Your task to perform on an android device: all mails in gmail Image 0: 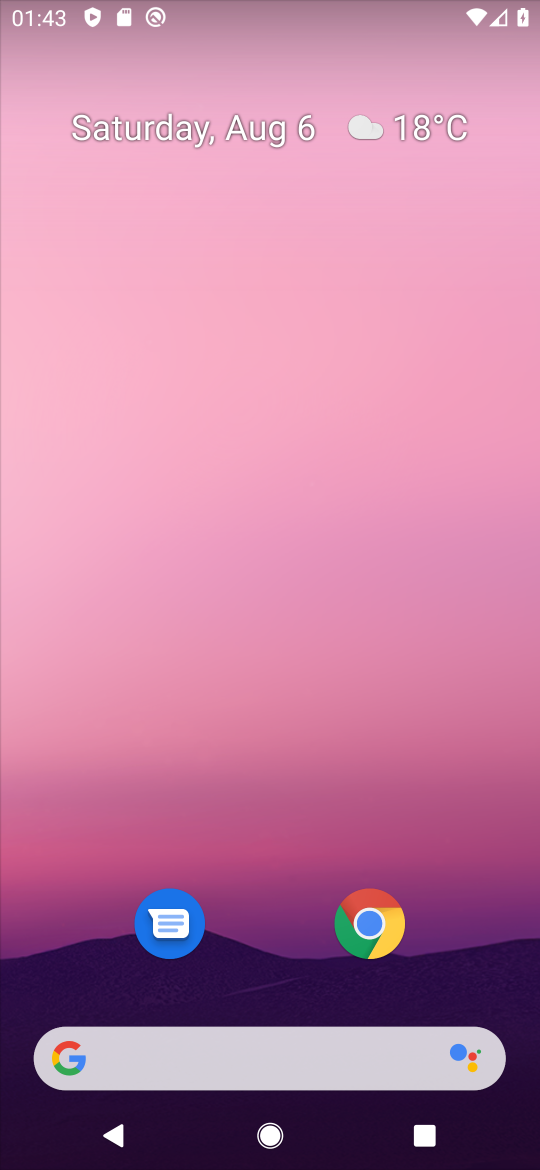
Step 0: drag from (267, 884) to (320, 408)
Your task to perform on an android device: all mails in gmail Image 1: 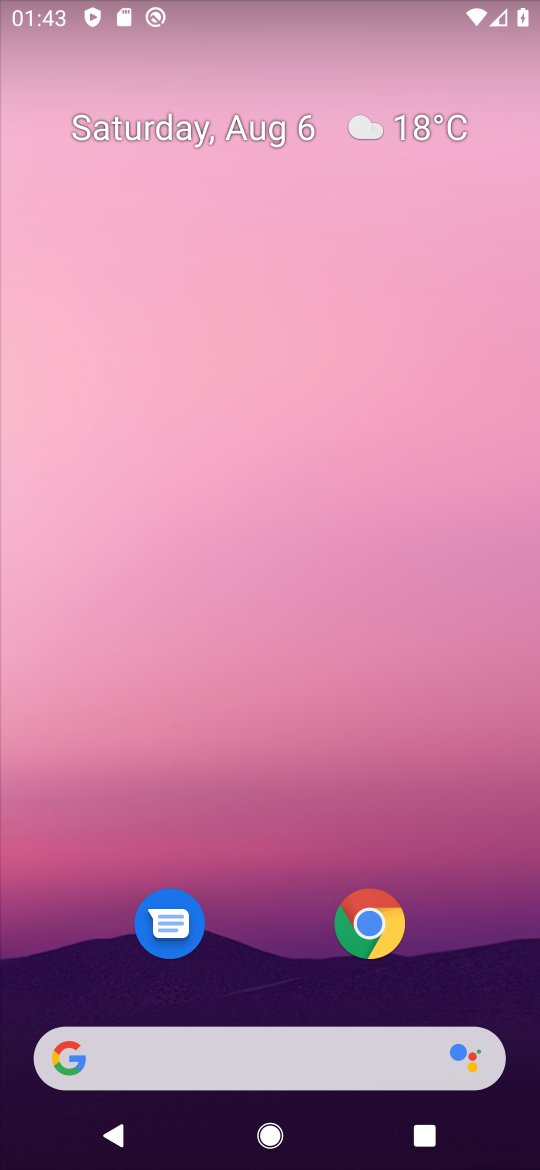
Step 1: drag from (308, 924) to (352, 226)
Your task to perform on an android device: all mails in gmail Image 2: 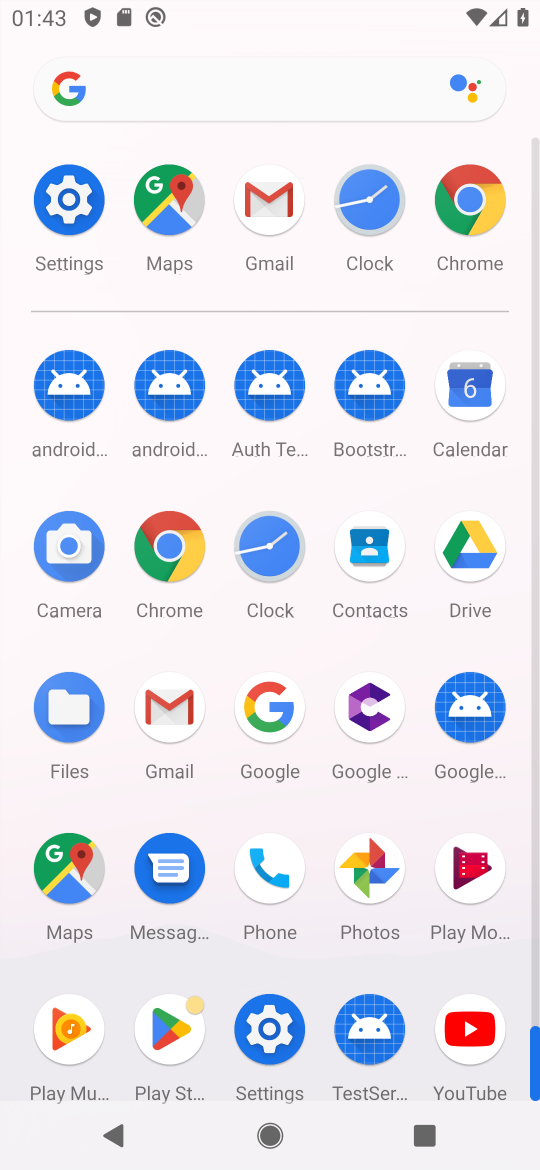
Step 2: click (167, 672)
Your task to perform on an android device: all mails in gmail Image 3: 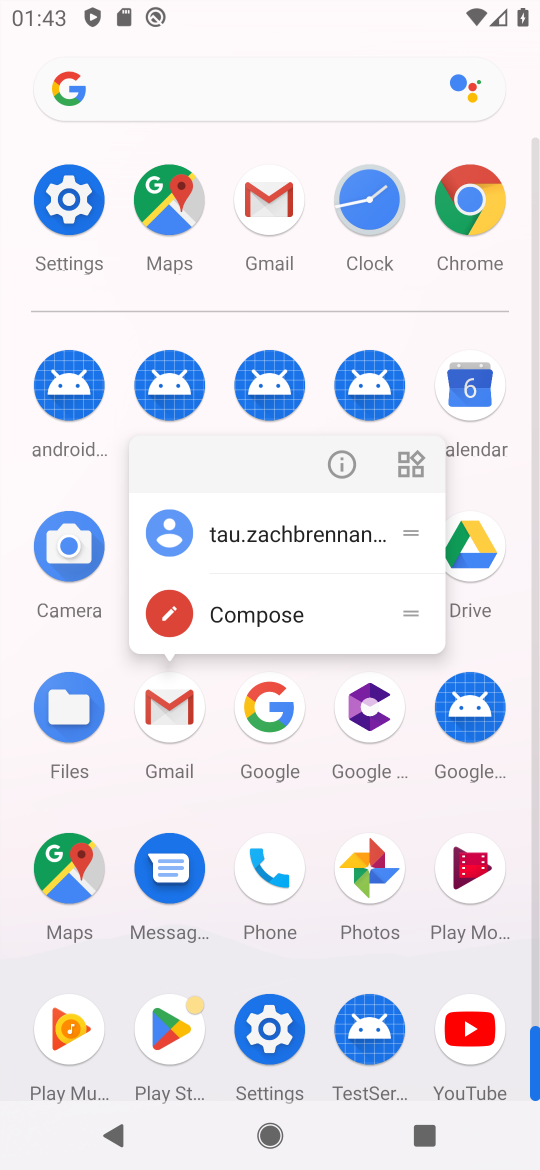
Step 3: click (344, 460)
Your task to perform on an android device: all mails in gmail Image 4: 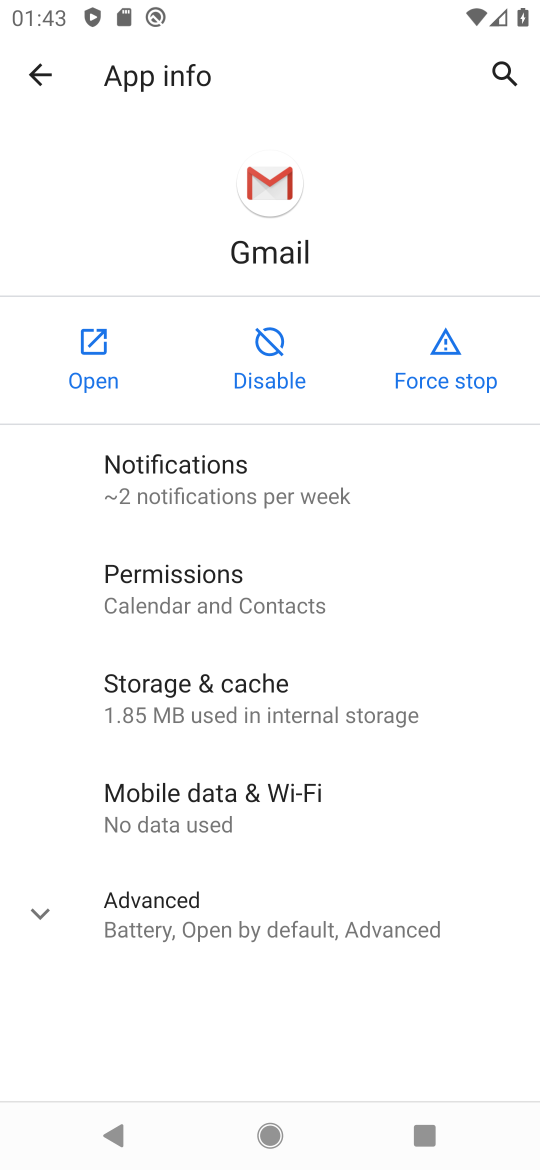
Step 4: click (96, 343)
Your task to perform on an android device: all mails in gmail Image 5: 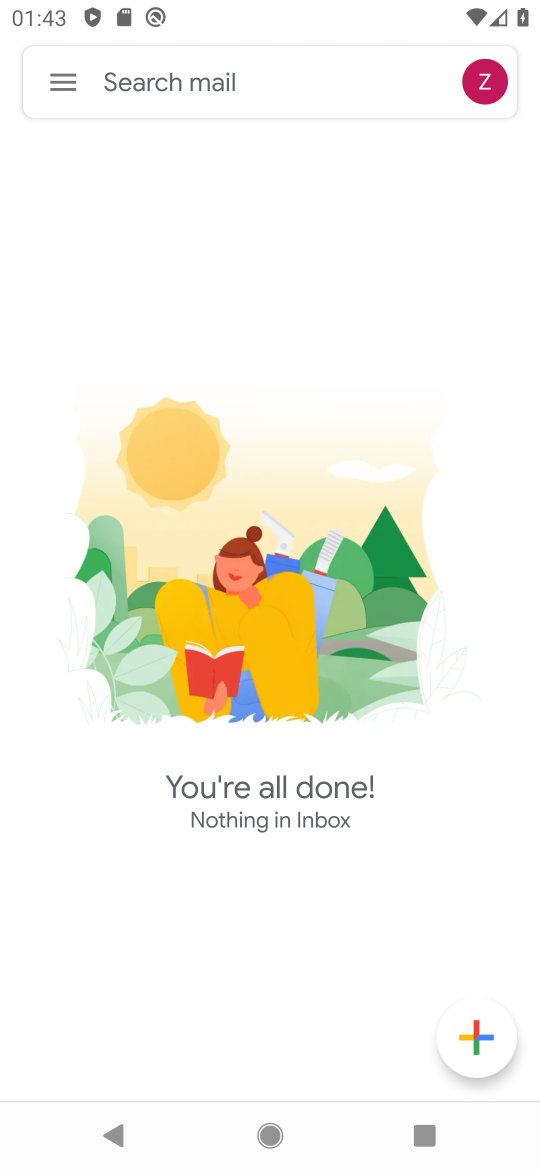
Step 5: drag from (287, 943) to (282, 486)
Your task to perform on an android device: all mails in gmail Image 6: 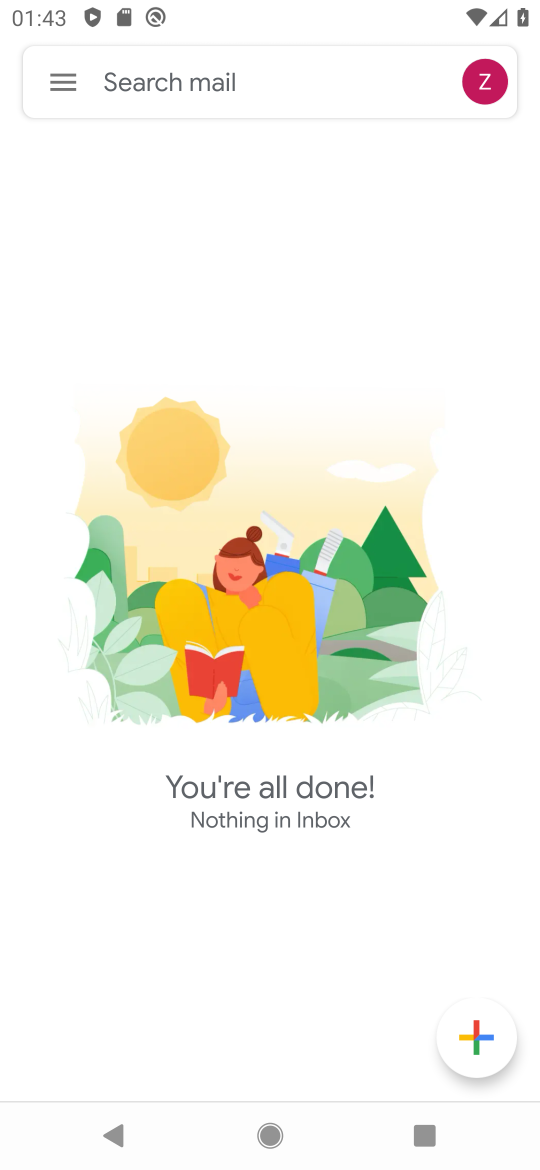
Step 6: click (56, 92)
Your task to perform on an android device: all mails in gmail Image 7: 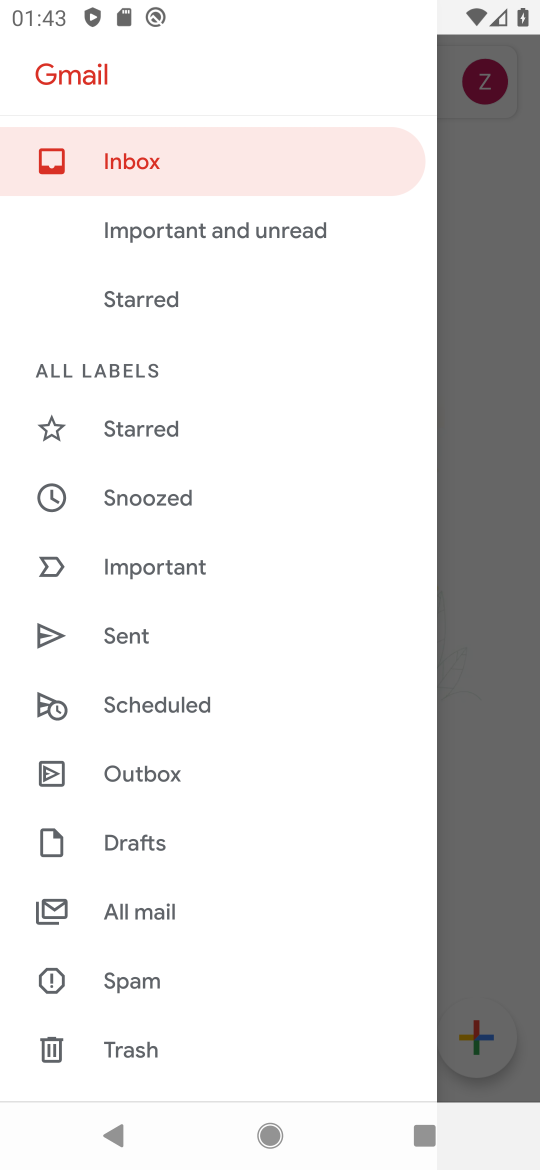
Step 7: click (147, 906)
Your task to perform on an android device: all mails in gmail Image 8: 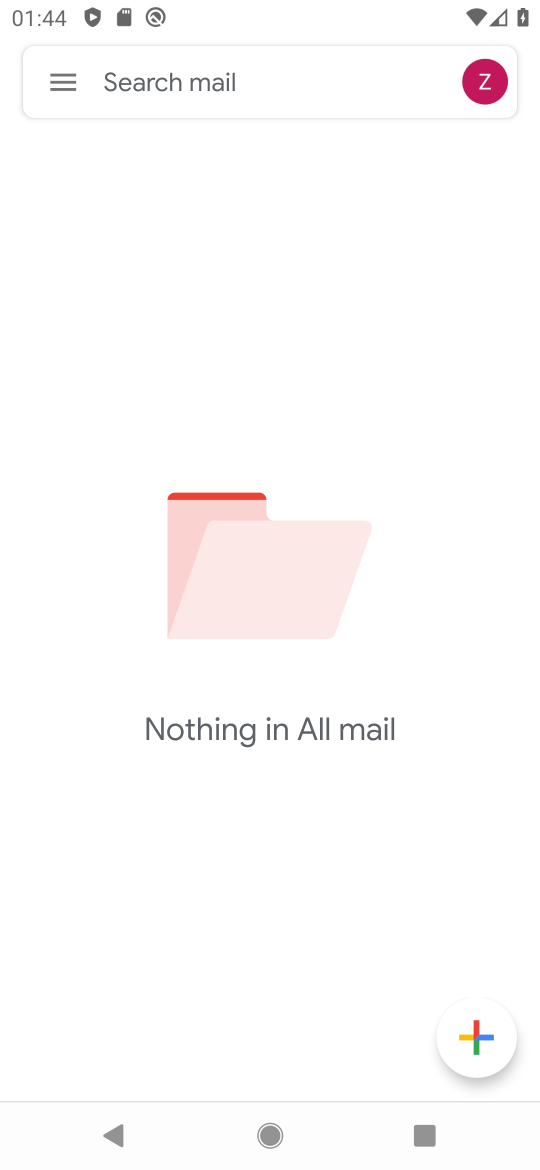
Step 8: click (63, 90)
Your task to perform on an android device: all mails in gmail Image 9: 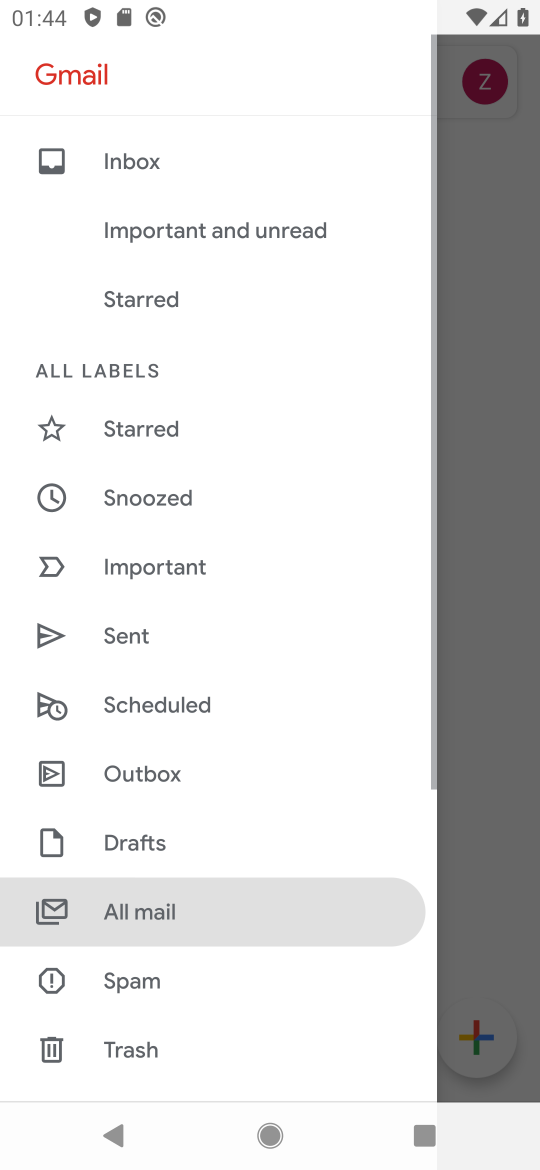
Step 9: drag from (208, 987) to (305, 256)
Your task to perform on an android device: all mails in gmail Image 10: 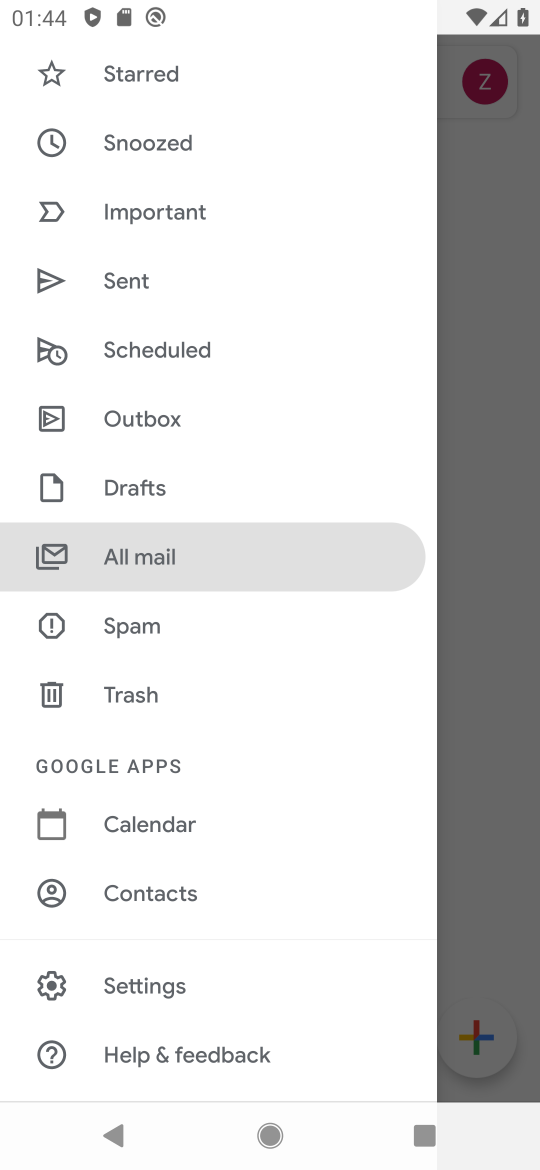
Step 10: click (137, 550)
Your task to perform on an android device: all mails in gmail Image 11: 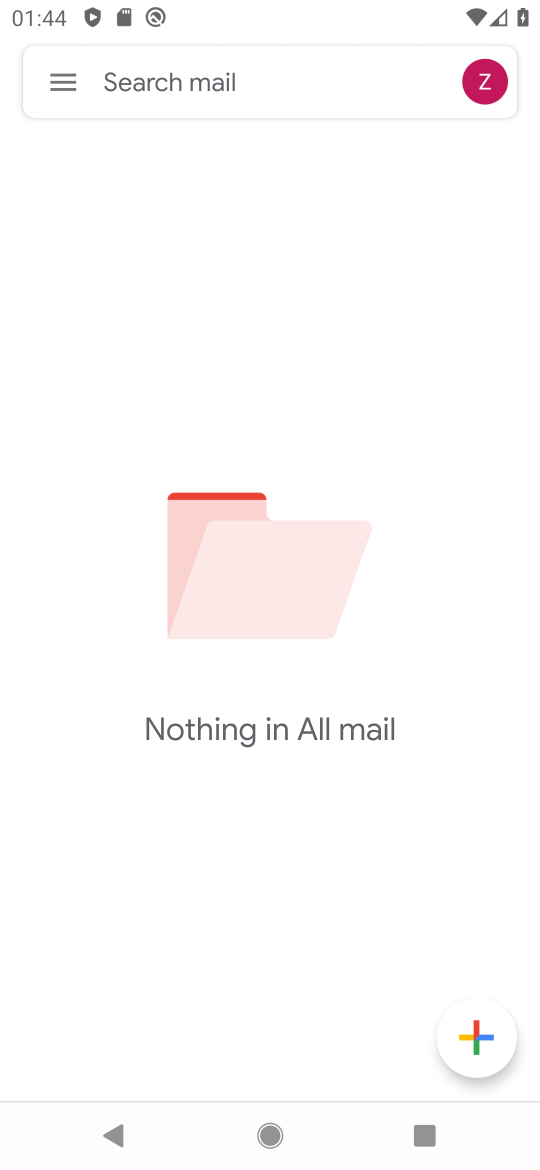
Step 11: task complete